Your task to perform on an android device: Go to wifi settings Image 0: 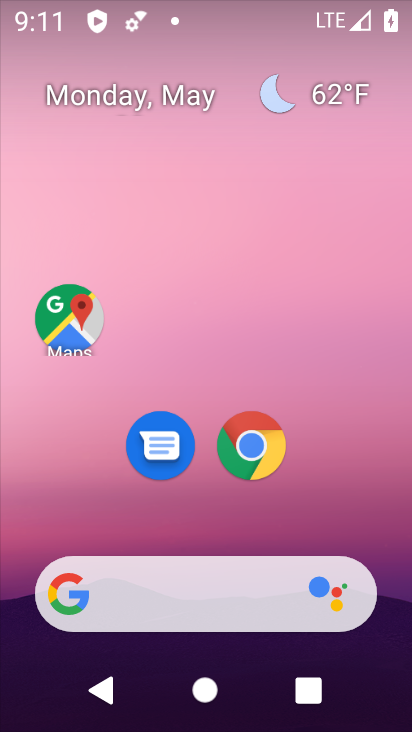
Step 0: drag from (390, 602) to (403, 177)
Your task to perform on an android device: Go to wifi settings Image 1: 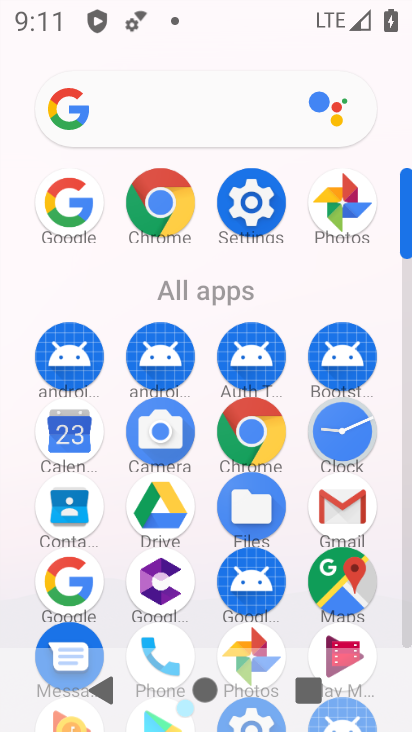
Step 1: click (249, 184)
Your task to perform on an android device: Go to wifi settings Image 2: 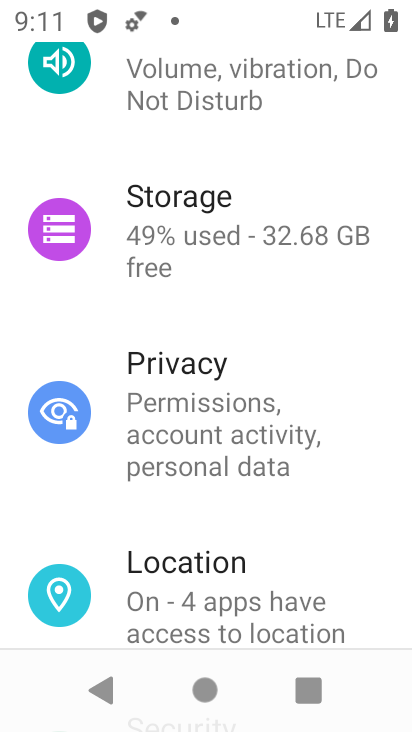
Step 2: drag from (188, 172) to (217, 614)
Your task to perform on an android device: Go to wifi settings Image 3: 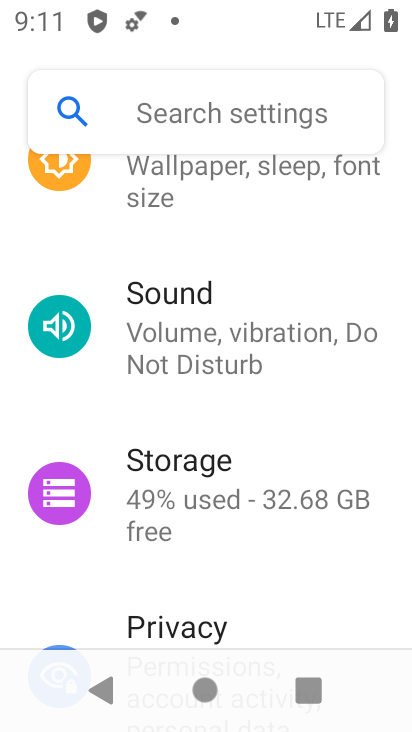
Step 3: drag from (187, 251) to (228, 619)
Your task to perform on an android device: Go to wifi settings Image 4: 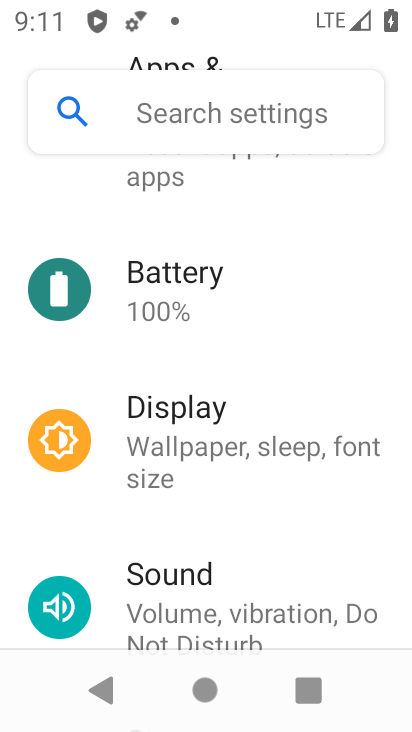
Step 4: drag from (240, 223) to (233, 571)
Your task to perform on an android device: Go to wifi settings Image 5: 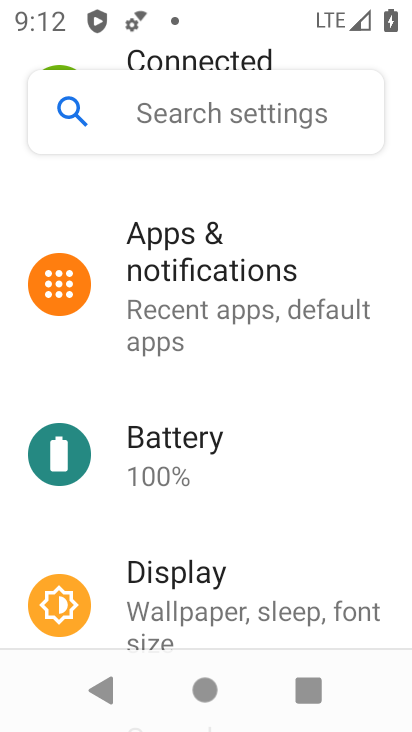
Step 5: drag from (233, 191) to (233, 615)
Your task to perform on an android device: Go to wifi settings Image 6: 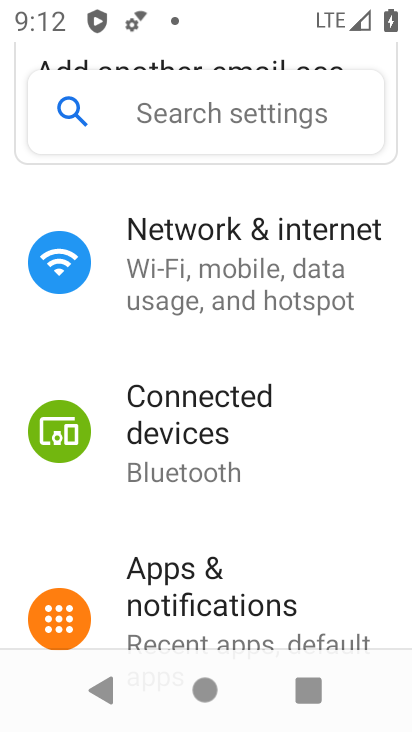
Step 6: click (182, 327)
Your task to perform on an android device: Go to wifi settings Image 7: 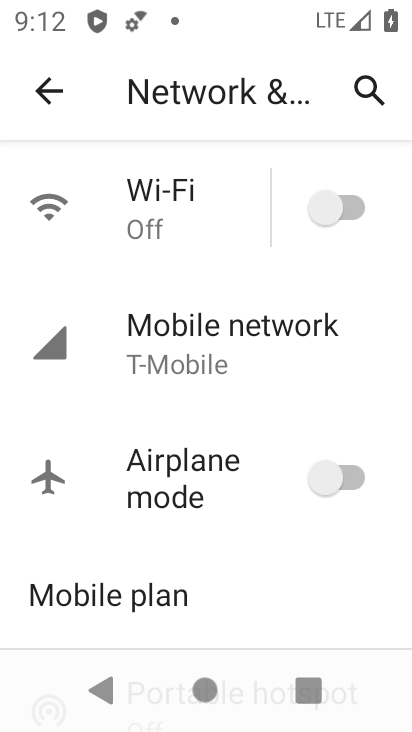
Step 7: click (174, 187)
Your task to perform on an android device: Go to wifi settings Image 8: 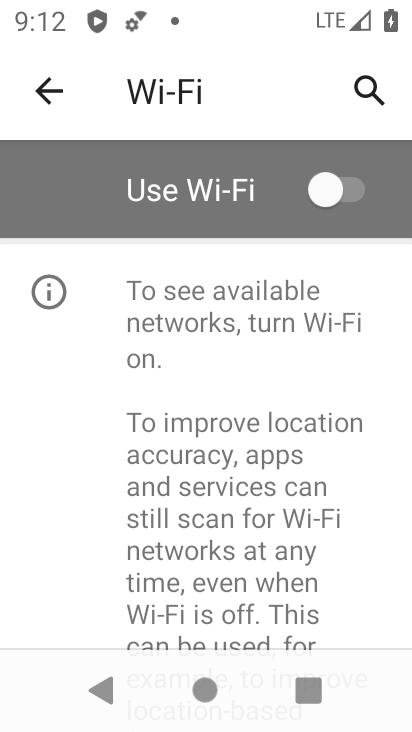
Step 8: task complete